Your task to perform on an android device: turn off data saver in the chrome app Image 0: 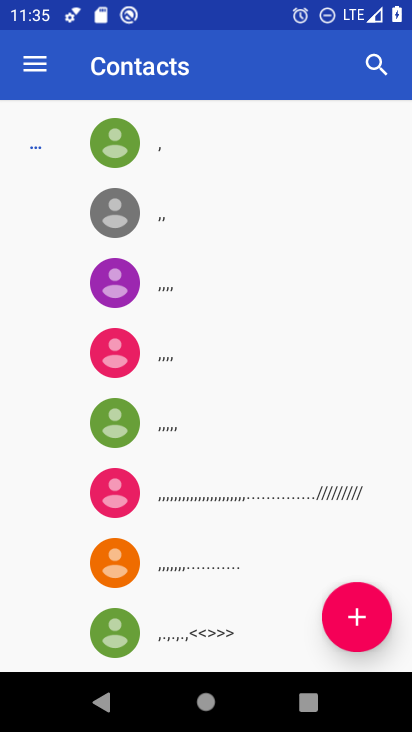
Step 0: press home button
Your task to perform on an android device: turn off data saver in the chrome app Image 1: 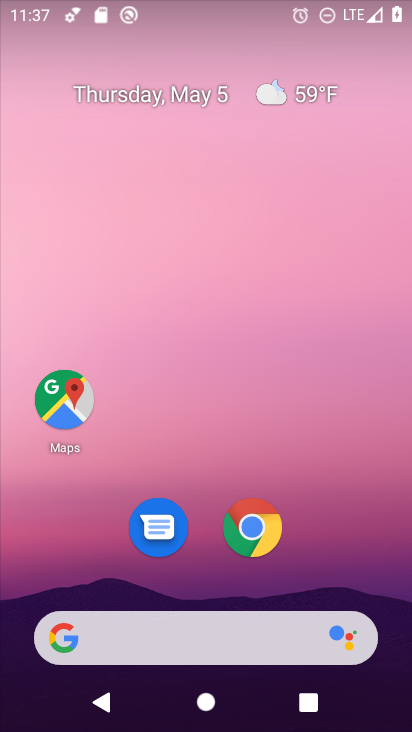
Step 1: click (255, 532)
Your task to perform on an android device: turn off data saver in the chrome app Image 2: 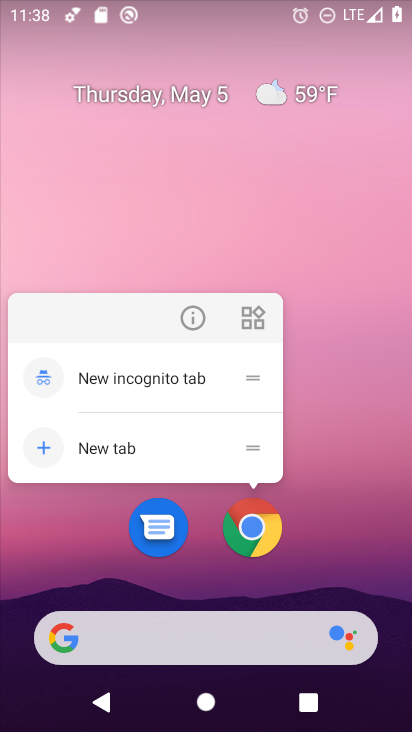
Step 2: click (266, 532)
Your task to perform on an android device: turn off data saver in the chrome app Image 3: 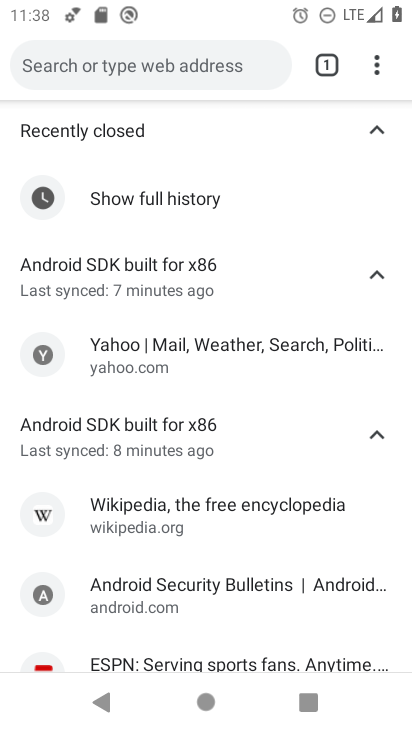
Step 3: drag from (377, 65) to (166, 568)
Your task to perform on an android device: turn off data saver in the chrome app Image 4: 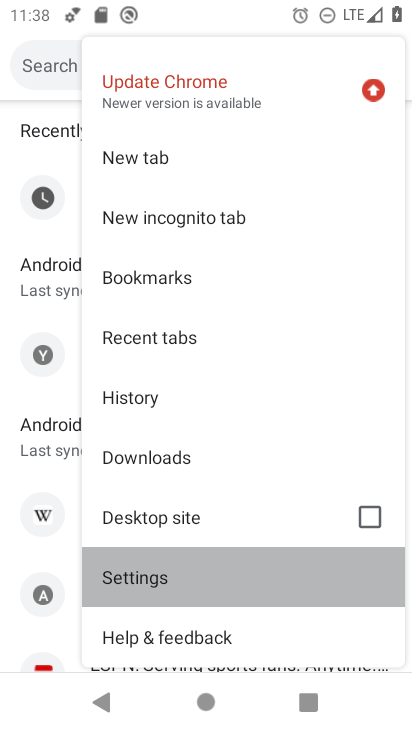
Step 4: click (166, 568)
Your task to perform on an android device: turn off data saver in the chrome app Image 5: 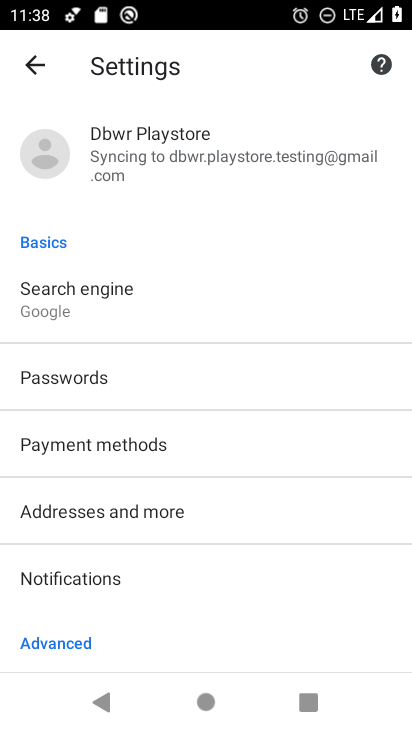
Step 5: drag from (219, 639) to (262, 269)
Your task to perform on an android device: turn off data saver in the chrome app Image 6: 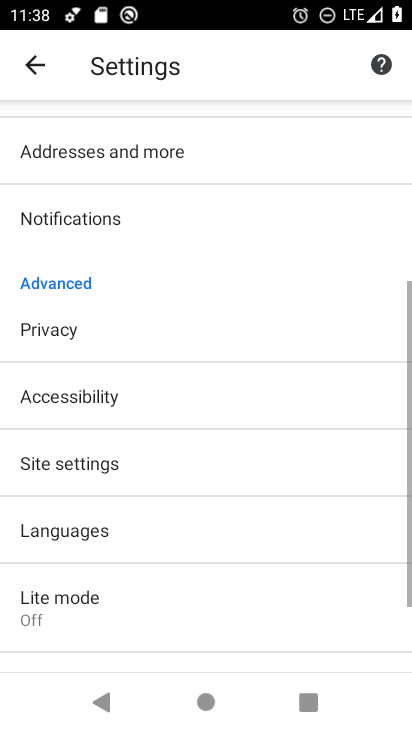
Step 6: click (92, 608)
Your task to perform on an android device: turn off data saver in the chrome app Image 7: 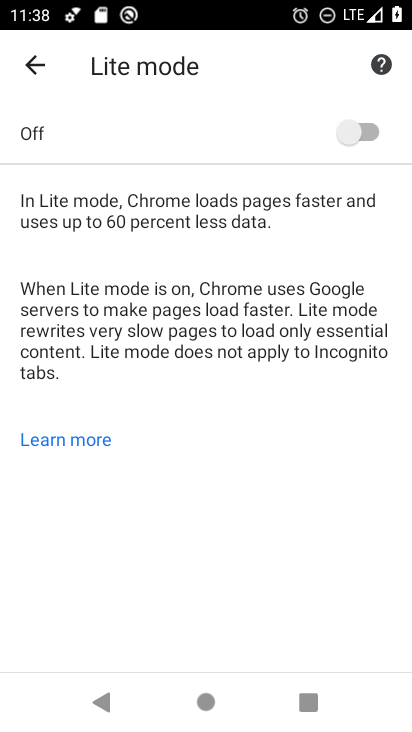
Step 7: click (358, 123)
Your task to perform on an android device: turn off data saver in the chrome app Image 8: 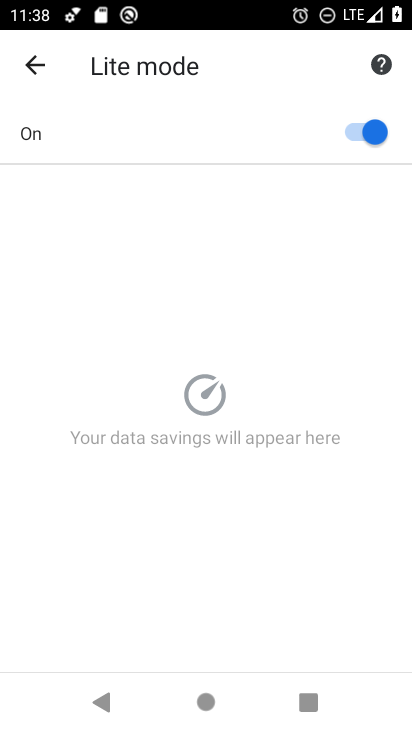
Step 8: click (356, 128)
Your task to perform on an android device: turn off data saver in the chrome app Image 9: 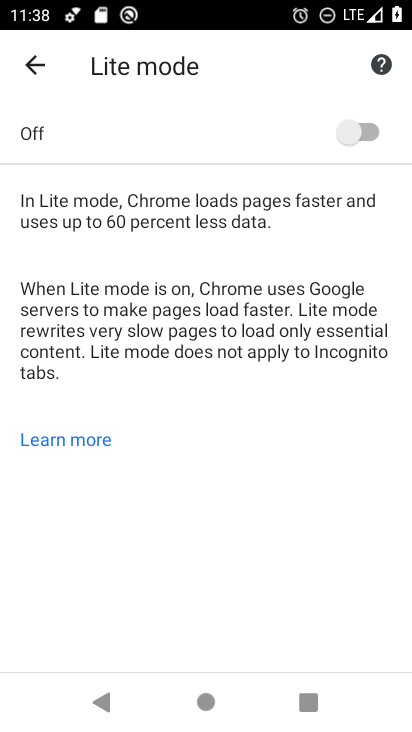
Step 9: task complete